Your task to perform on an android device: Go to location settings Image 0: 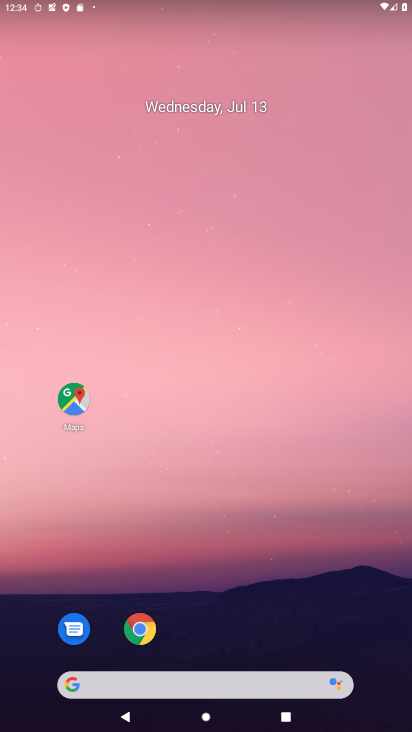
Step 0: drag from (206, 628) to (167, 76)
Your task to perform on an android device: Go to location settings Image 1: 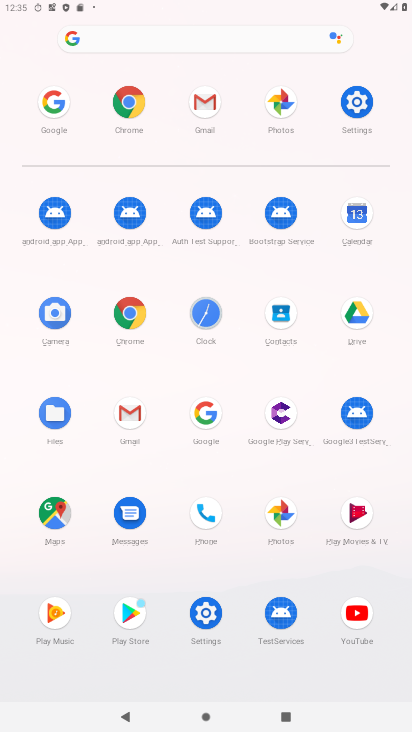
Step 1: click (344, 104)
Your task to perform on an android device: Go to location settings Image 2: 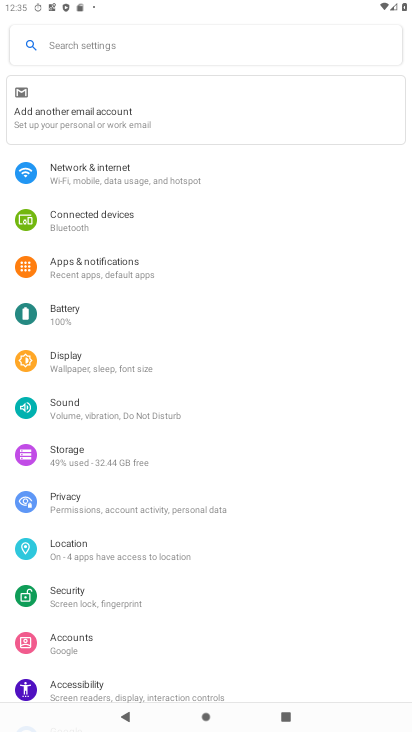
Step 2: click (132, 554)
Your task to perform on an android device: Go to location settings Image 3: 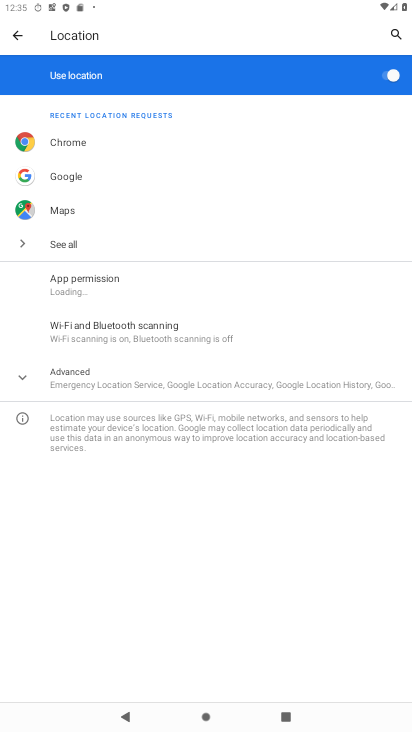
Step 3: task complete